Your task to perform on an android device: add a contact Image 0: 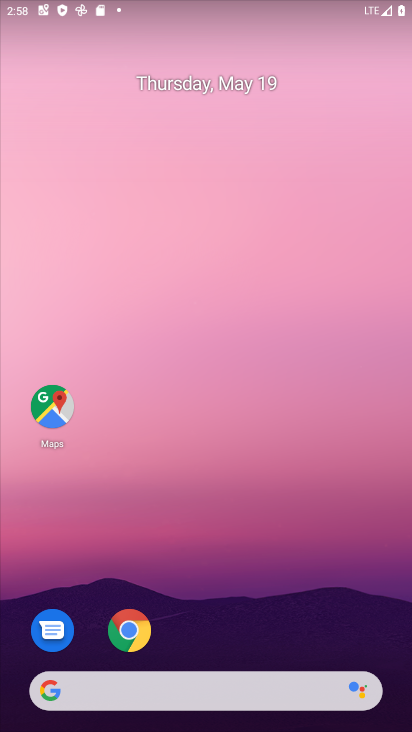
Step 0: drag from (384, 644) to (293, 77)
Your task to perform on an android device: add a contact Image 1: 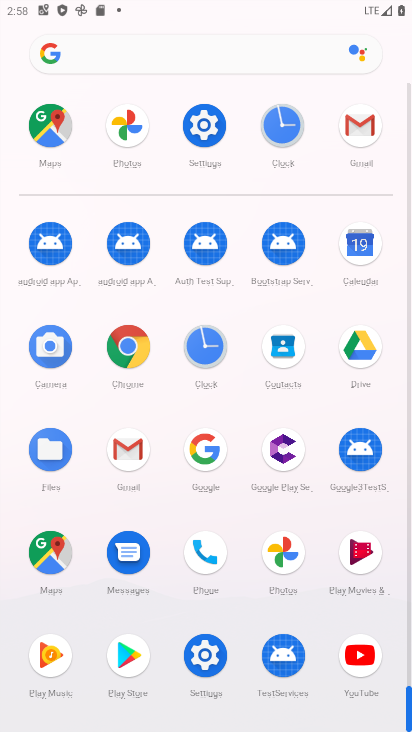
Step 1: click (284, 348)
Your task to perform on an android device: add a contact Image 2: 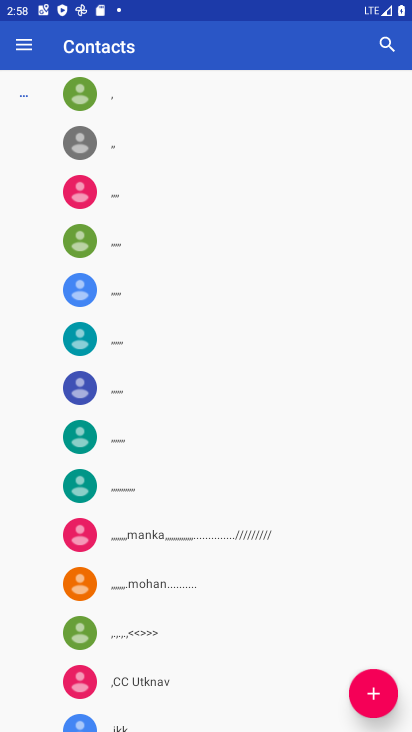
Step 2: click (375, 695)
Your task to perform on an android device: add a contact Image 3: 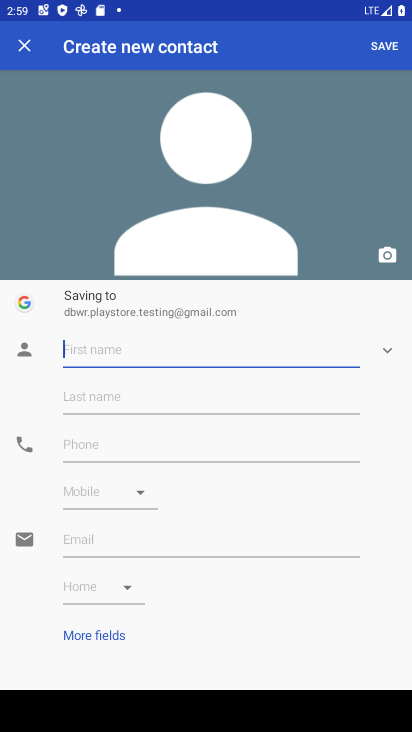
Step 3: type "klgfdsght"
Your task to perform on an android device: add a contact Image 4: 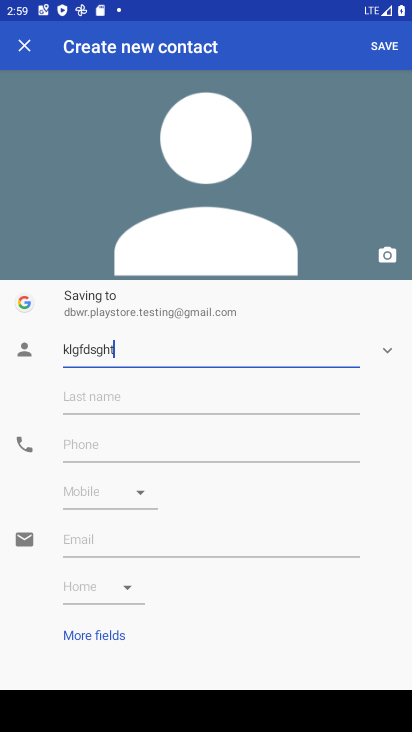
Step 4: click (80, 458)
Your task to perform on an android device: add a contact Image 5: 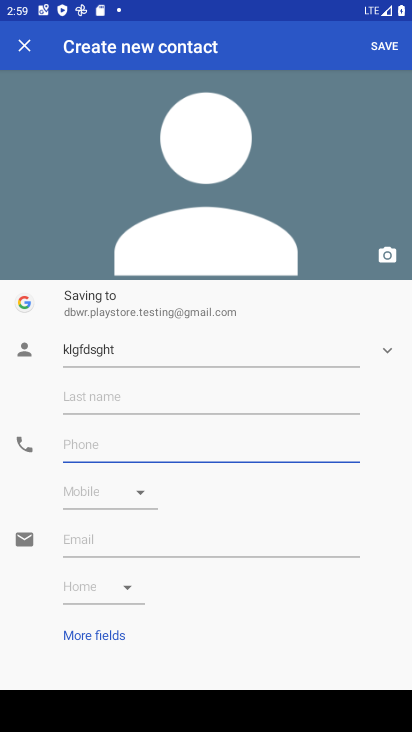
Step 5: type "9081234667"
Your task to perform on an android device: add a contact Image 6: 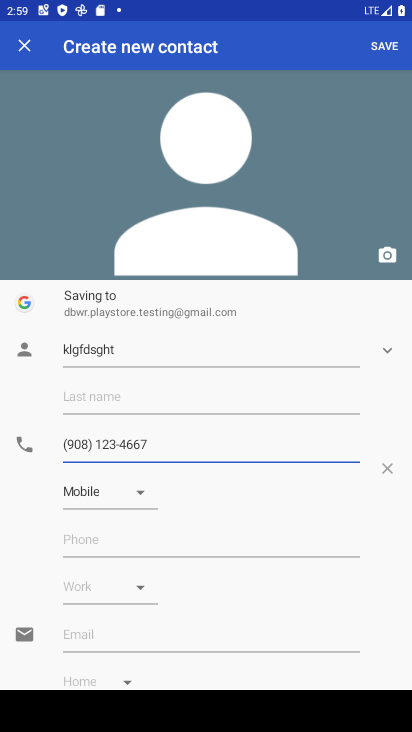
Step 6: click (131, 489)
Your task to perform on an android device: add a contact Image 7: 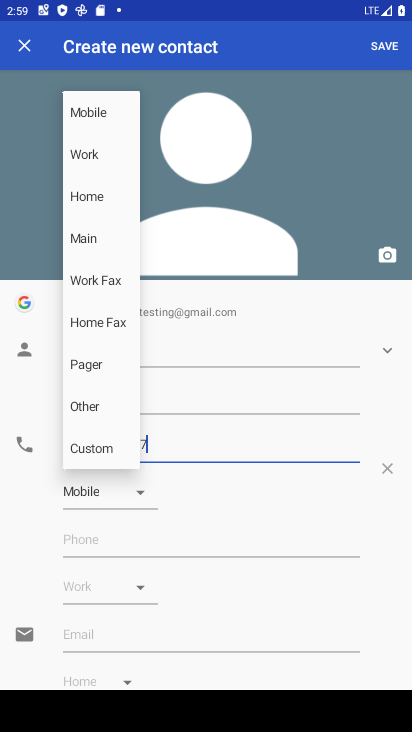
Step 7: click (78, 148)
Your task to perform on an android device: add a contact Image 8: 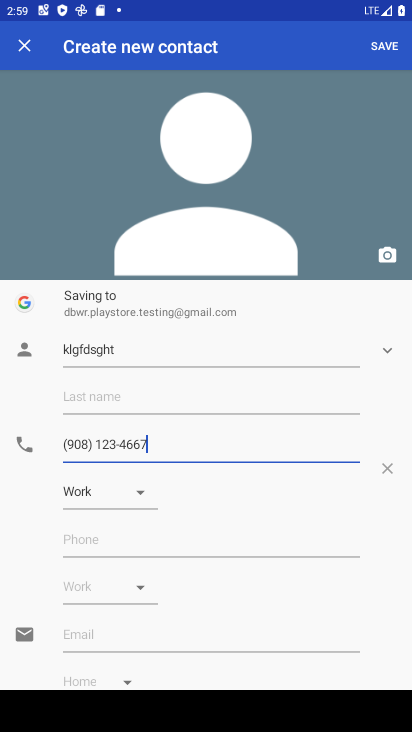
Step 8: click (376, 41)
Your task to perform on an android device: add a contact Image 9: 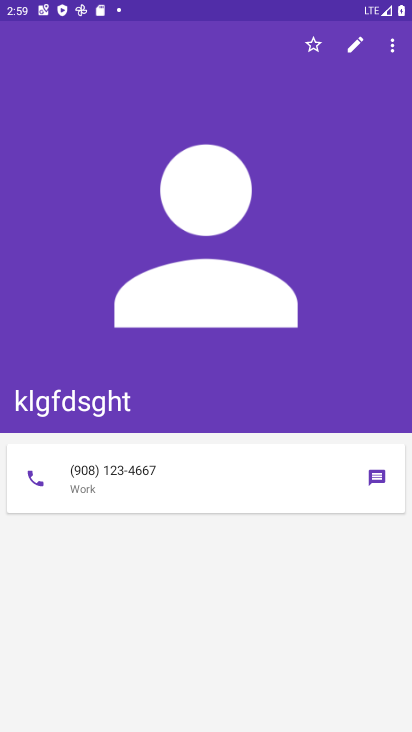
Step 9: task complete